Your task to perform on an android device: Open eBay Image 0: 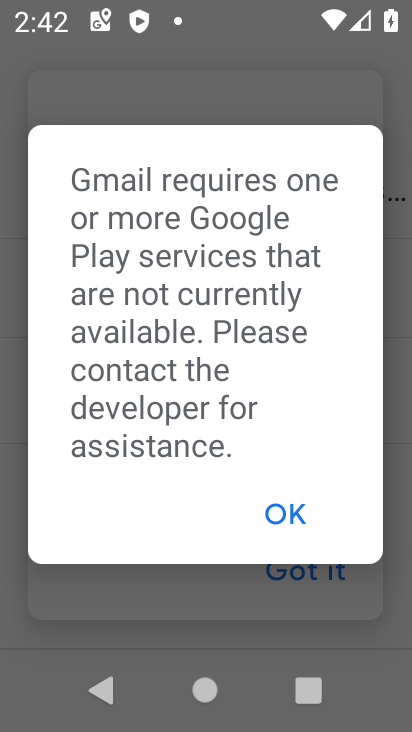
Step 0: press home button
Your task to perform on an android device: Open eBay Image 1: 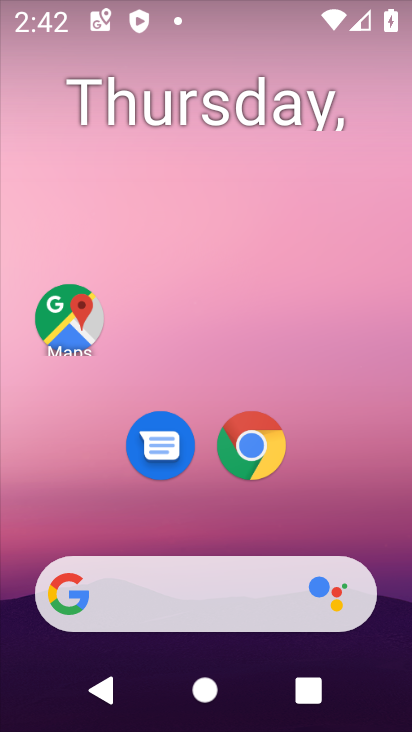
Step 1: click (254, 443)
Your task to perform on an android device: Open eBay Image 2: 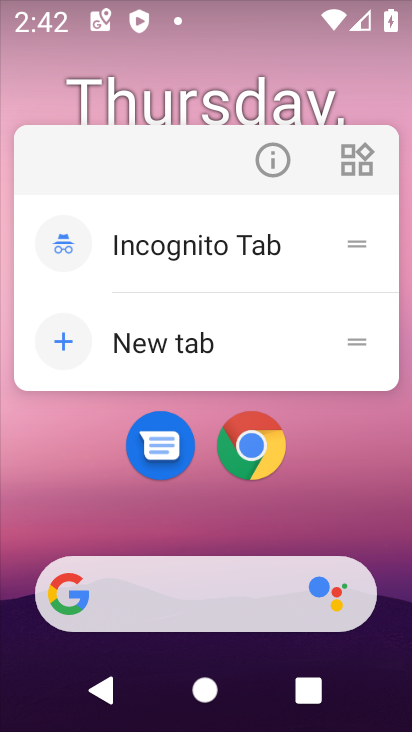
Step 2: click (254, 443)
Your task to perform on an android device: Open eBay Image 3: 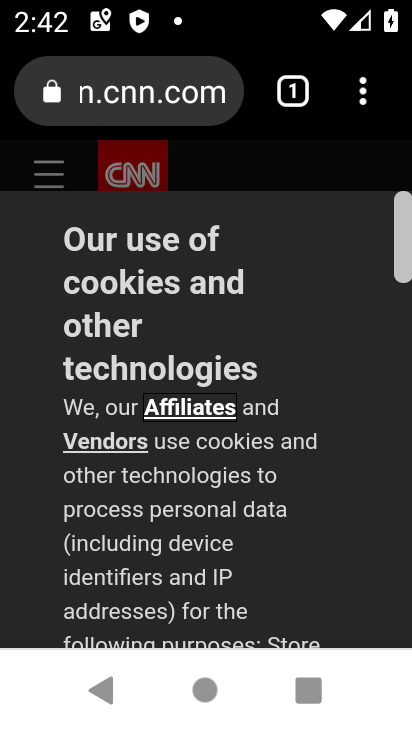
Step 3: click (295, 102)
Your task to perform on an android device: Open eBay Image 4: 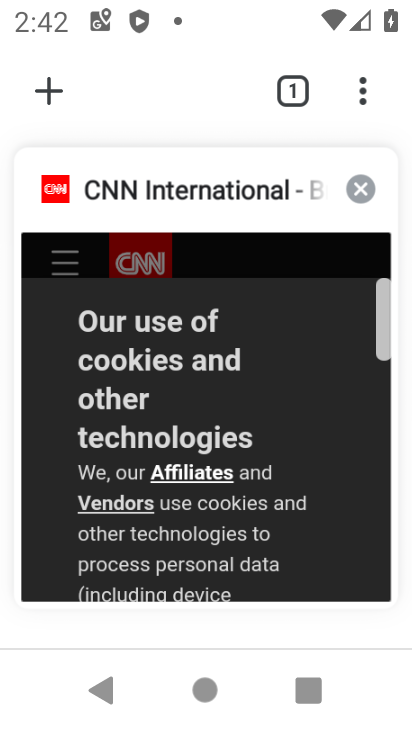
Step 4: click (367, 194)
Your task to perform on an android device: Open eBay Image 5: 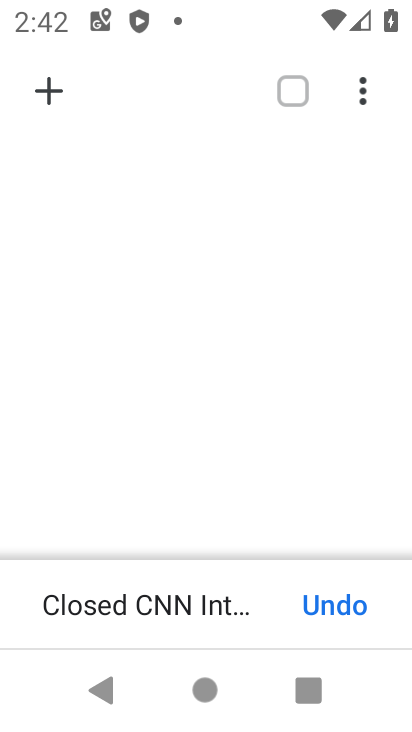
Step 5: click (57, 87)
Your task to perform on an android device: Open eBay Image 6: 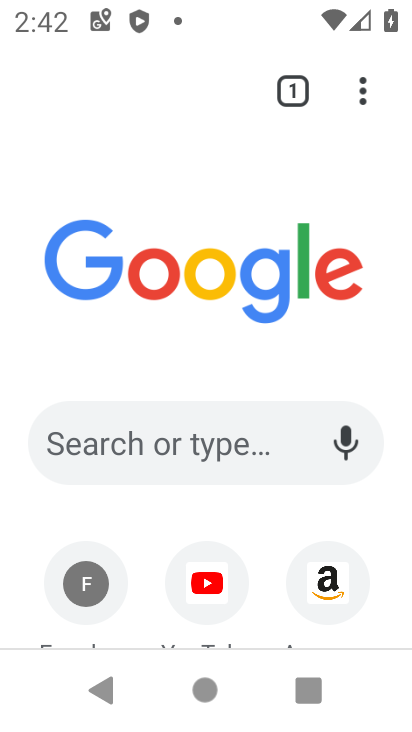
Step 6: drag from (13, 384) to (144, 129)
Your task to perform on an android device: Open eBay Image 7: 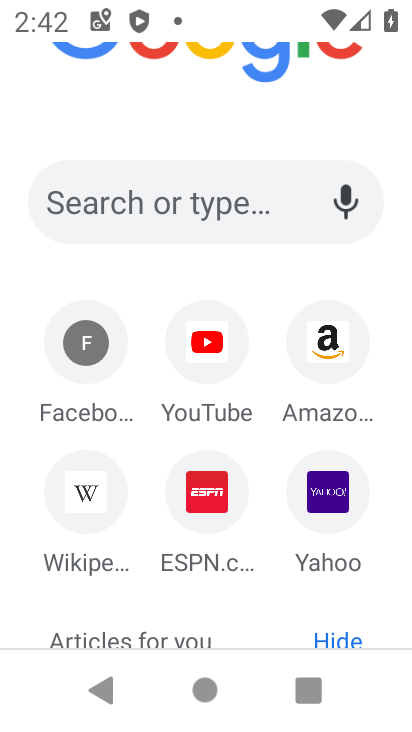
Step 7: click (118, 202)
Your task to perform on an android device: Open eBay Image 8: 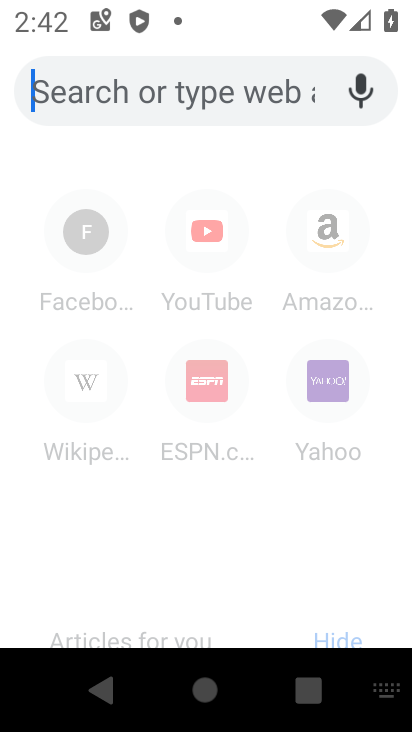
Step 8: type "eBay"
Your task to perform on an android device: Open eBay Image 9: 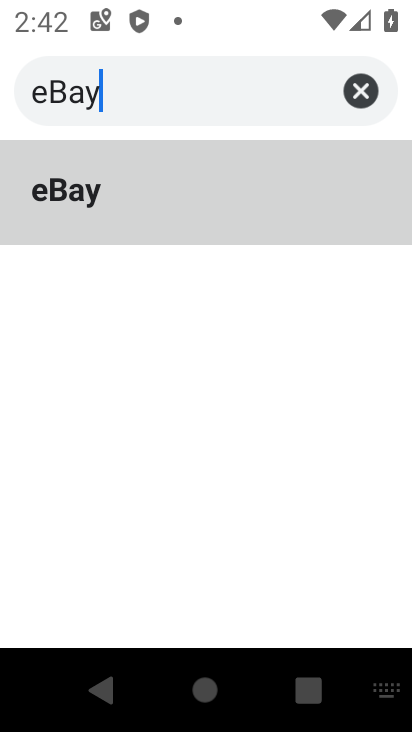
Step 9: type ""
Your task to perform on an android device: Open eBay Image 10: 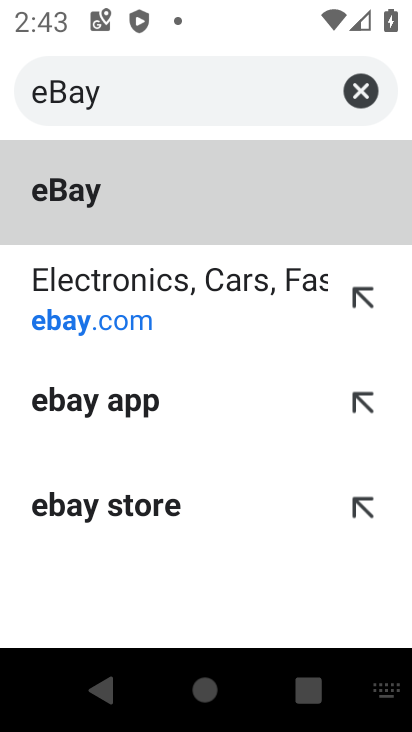
Step 10: click (200, 184)
Your task to perform on an android device: Open eBay Image 11: 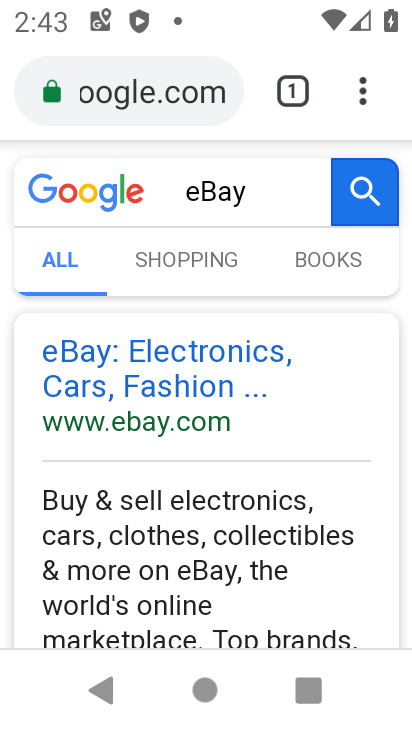
Step 11: click (200, 358)
Your task to perform on an android device: Open eBay Image 12: 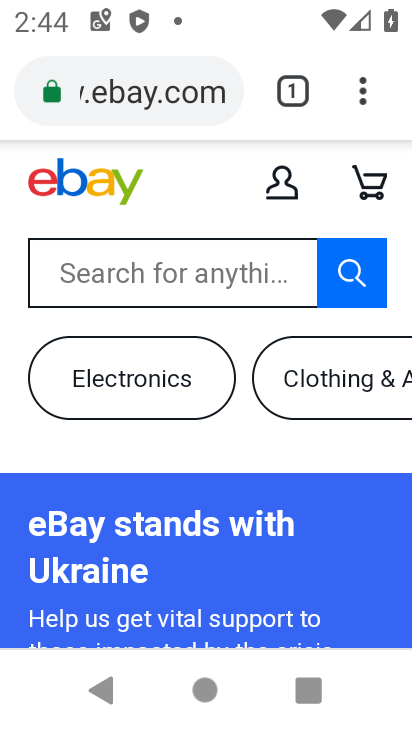
Step 12: task complete